Your task to perform on an android device: set default search engine in the chrome app Image 0: 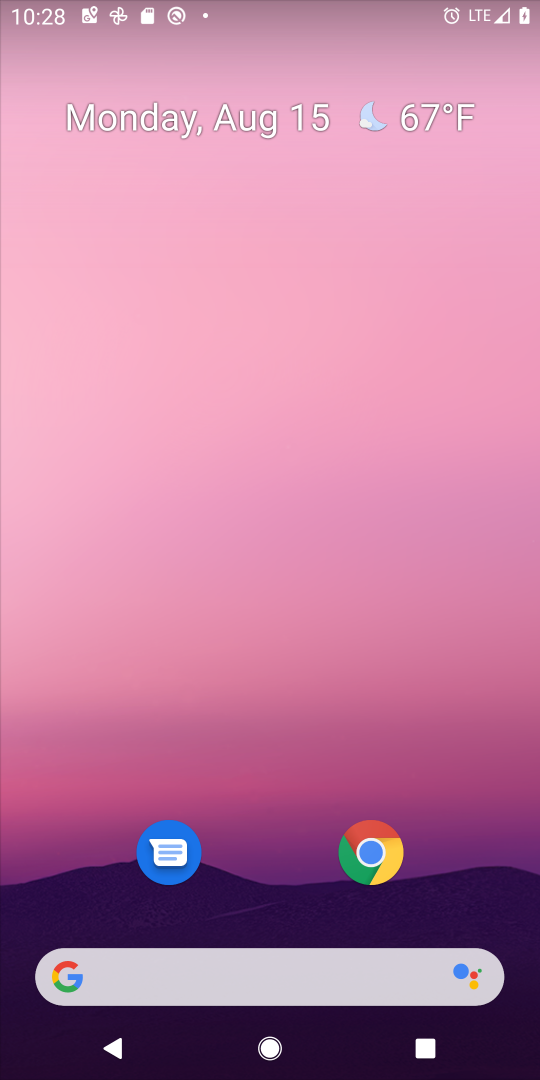
Step 0: click (371, 851)
Your task to perform on an android device: set default search engine in the chrome app Image 1: 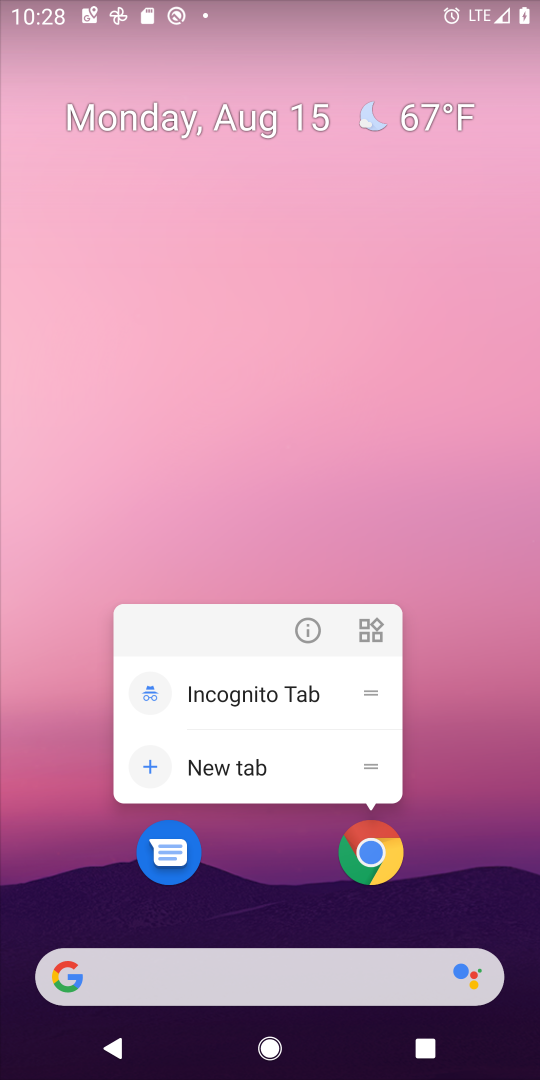
Step 1: click (371, 851)
Your task to perform on an android device: set default search engine in the chrome app Image 2: 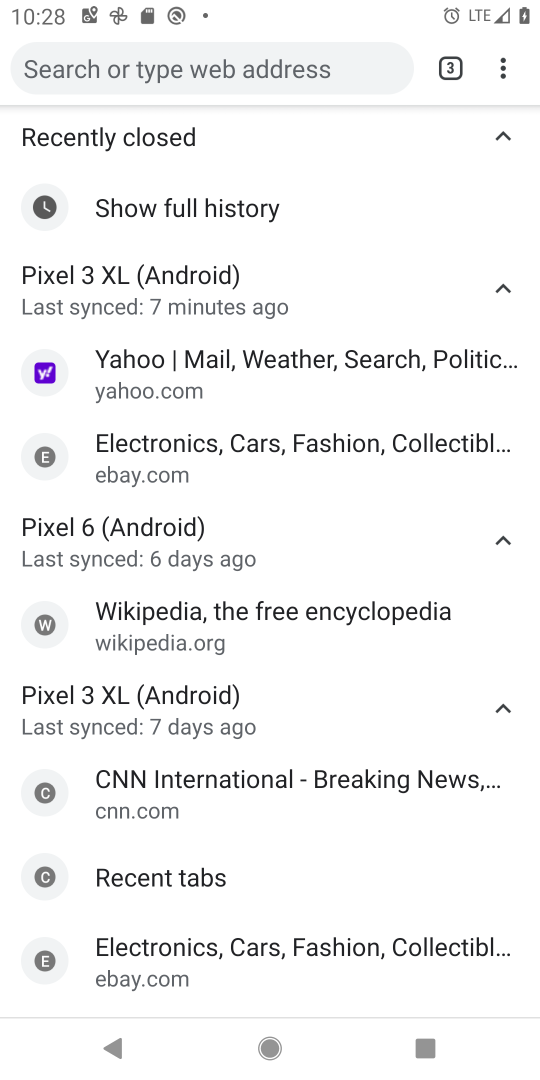
Step 2: click (510, 77)
Your task to perform on an android device: set default search engine in the chrome app Image 3: 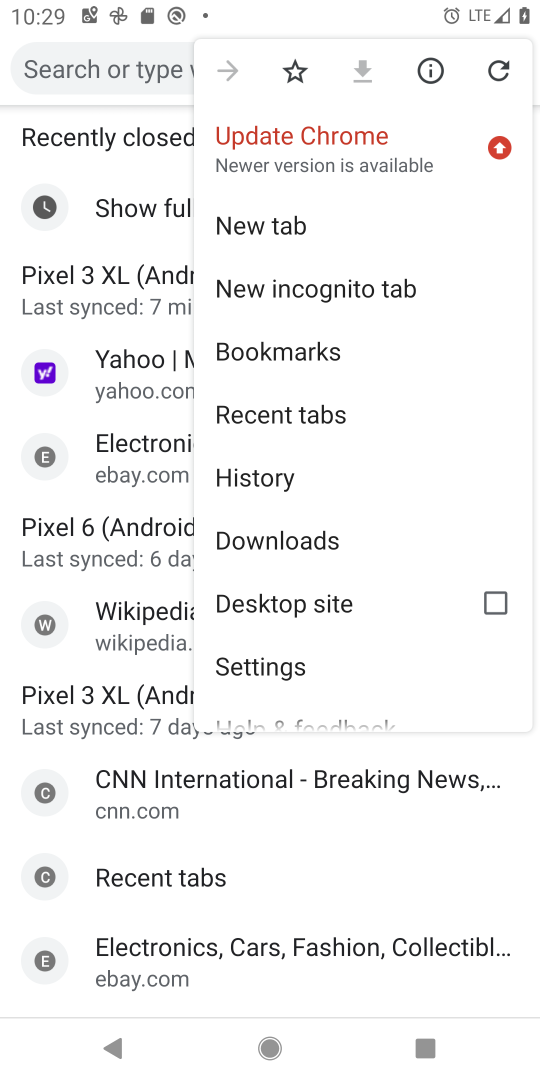
Step 3: click (258, 663)
Your task to perform on an android device: set default search engine in the chrome app Image 4: 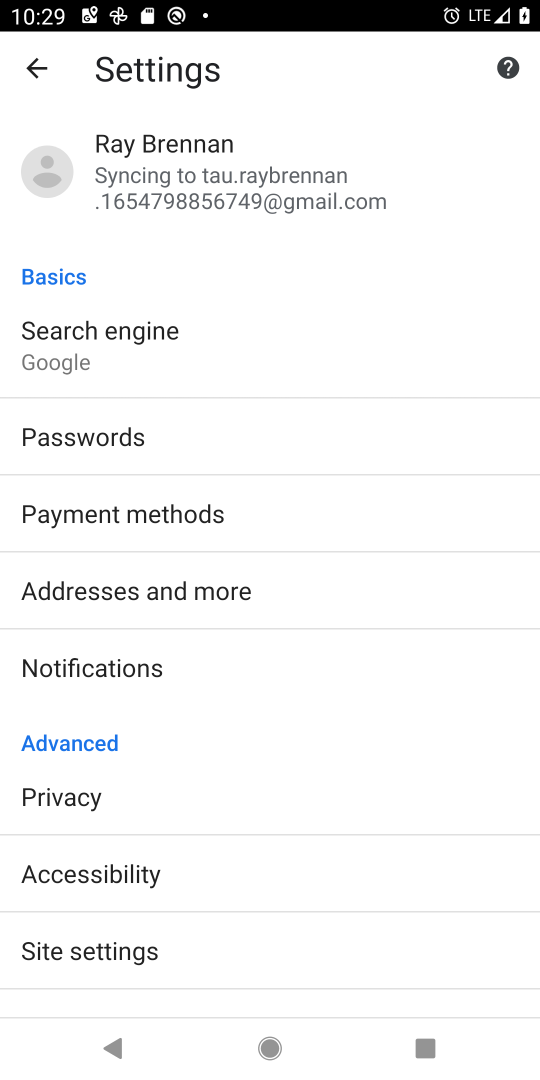
Step 4: click (83, 346)
Your task to perform on an android device: set default search engine in the chrome app Image 5: 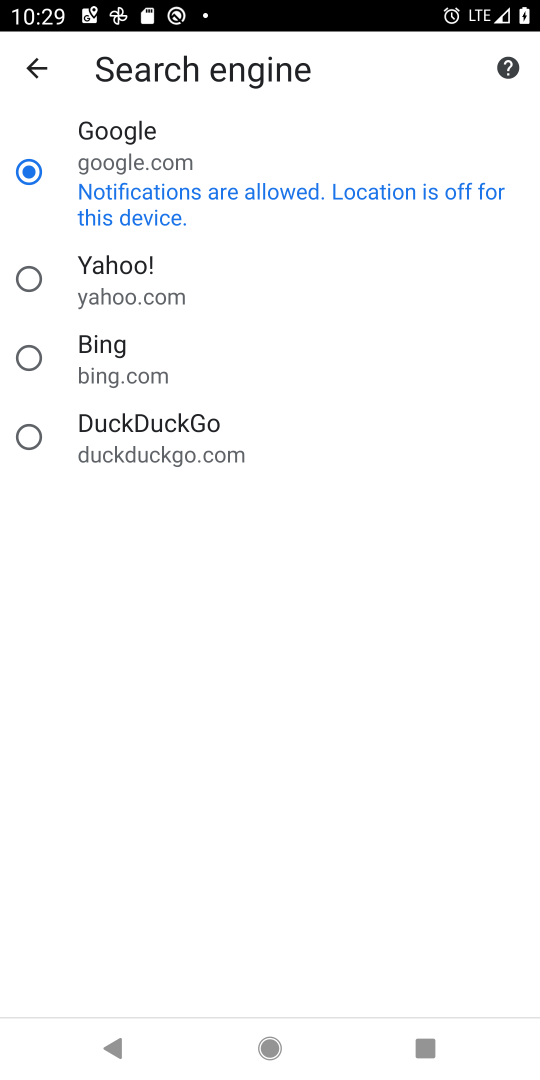
Step 5: click (28, 173)
Your task to perform on an android device: set default search engine in the chrome app Image 6: 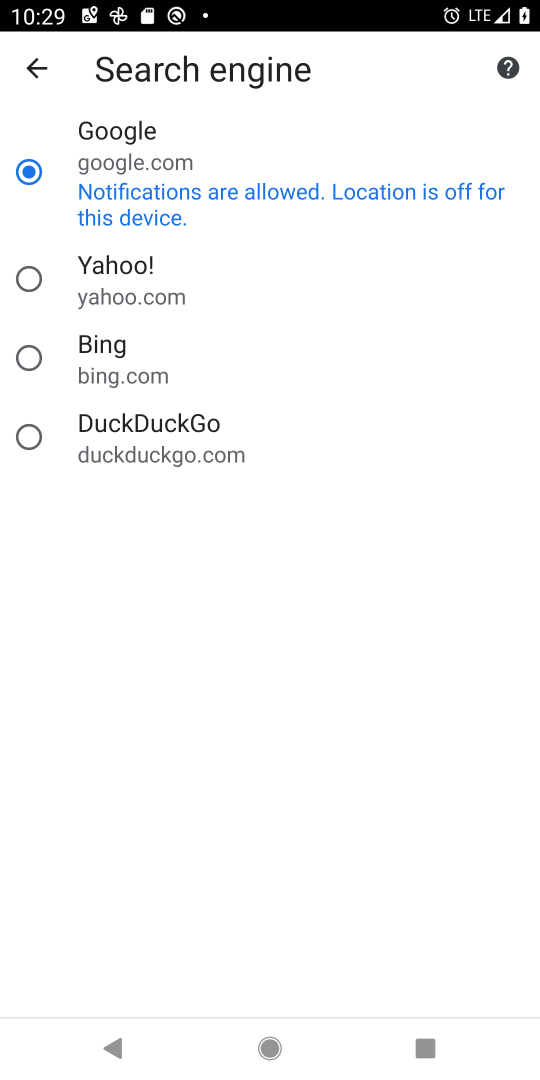
Step 6: task complete